Your task to perform on an android device: turn on notifications settings in the gmail app Image 0: 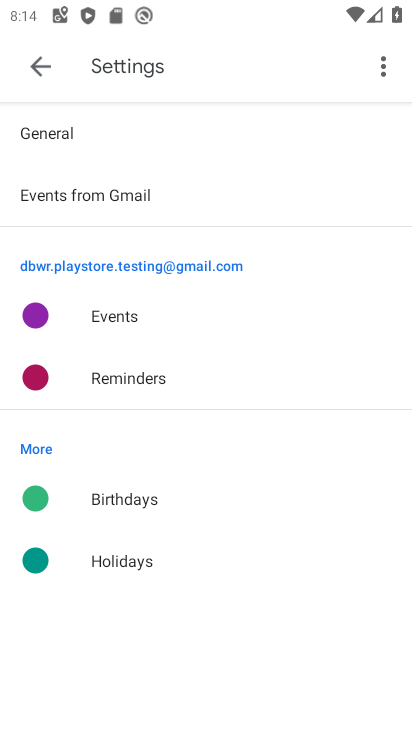
Step 0: press home button
Your task to perform on an android device: turn on notifications settings in the gmail app Image 1: 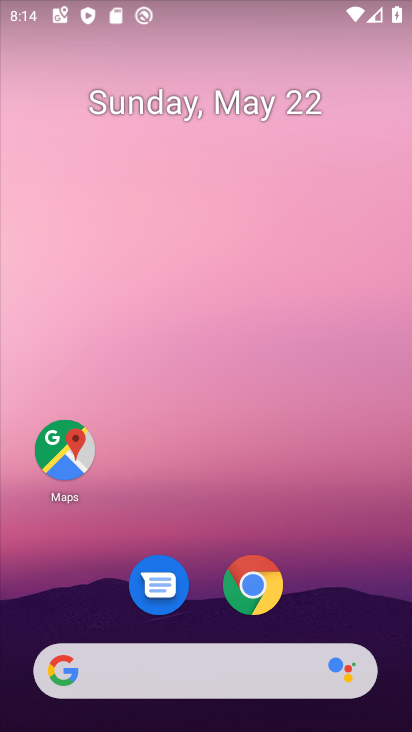
Step 1: drag from (214, 500) to (224, 26)
Your task to perform on an android device: turn on notifications settings in the gmail app Image 2: 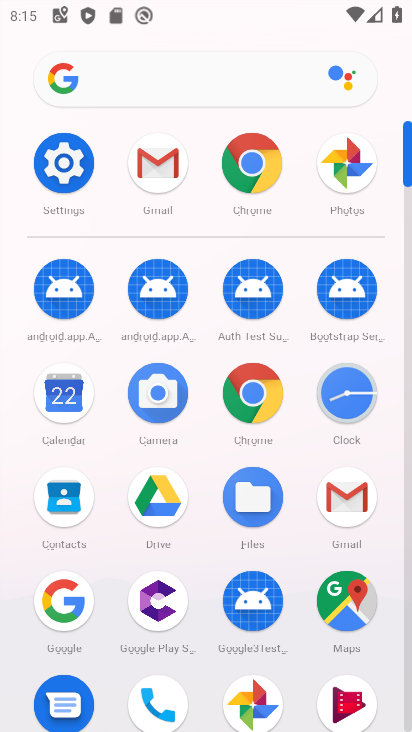
Step 2: click (165, 157)
Your task to perform on an android device: turn on notifications settings in the gmail app Image 3: 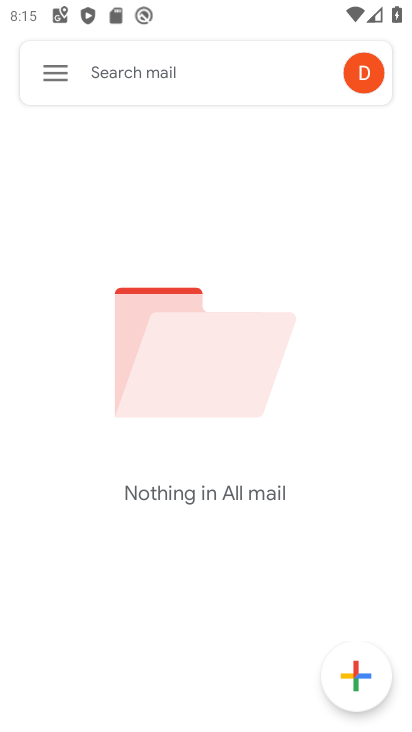
Step 3: click (64, 73)
Your task to perform on an android device: turn on notifications settings in the gmail app Image 4: 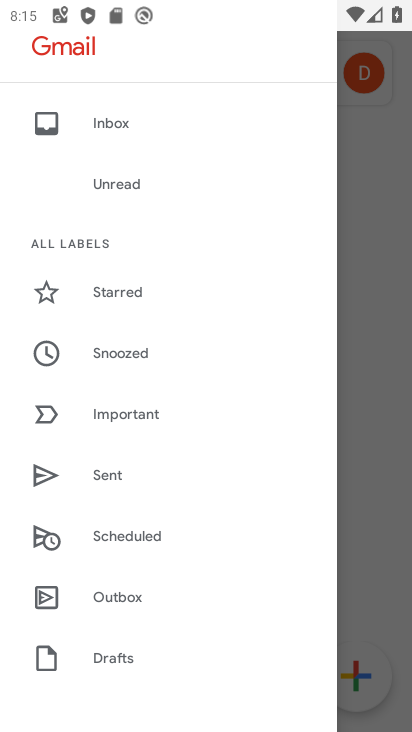
Step 4: drag from (158, 480) to (180, 39)
Your task to perform on an android device: turn on notifications settings in the gmail app Image 5: 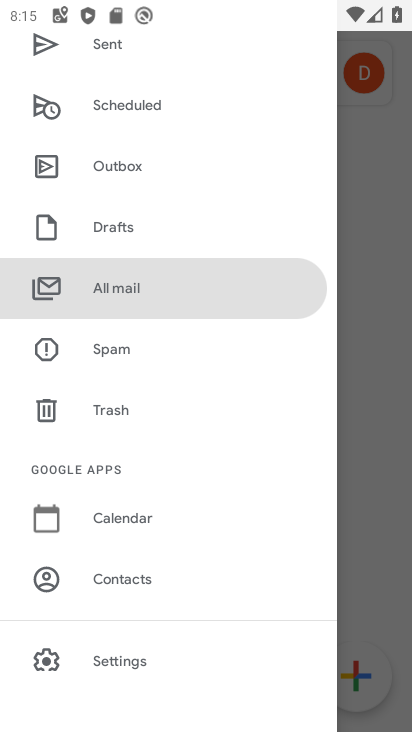
Step 5: drag from (186, 396) to (197, 331)
Your task to perform on an android device: turn on notifications settings in the gmail app Image 6: 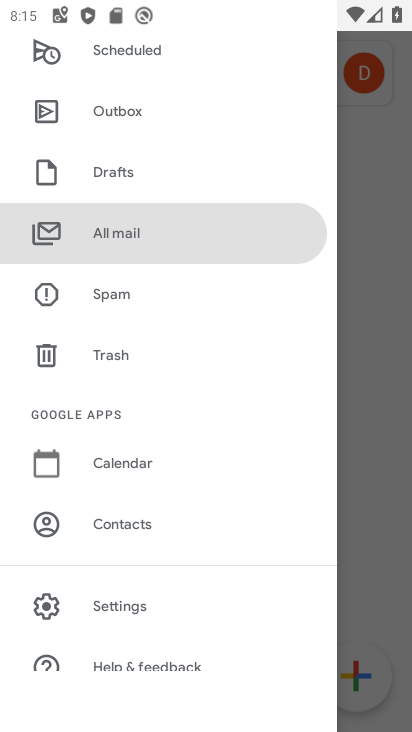
Step 6: click (118, 611)
Your task to perform on an android device: turn on notifications settings in the gmail app Image 7: 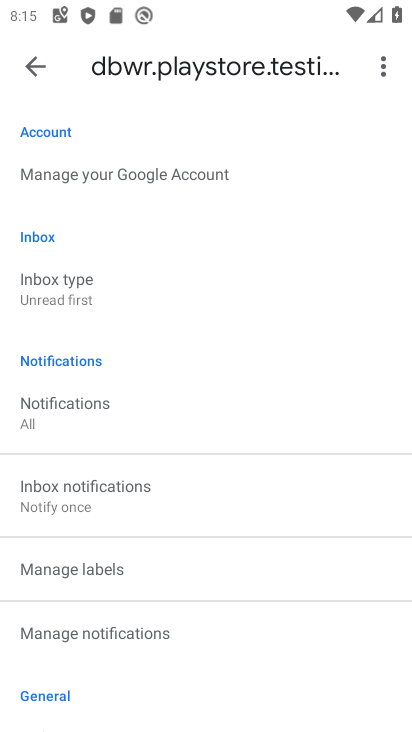
Step 7: click (129, 626)
Your task to perform on an android device: turn on notifications settings in the gmail app Image 8: 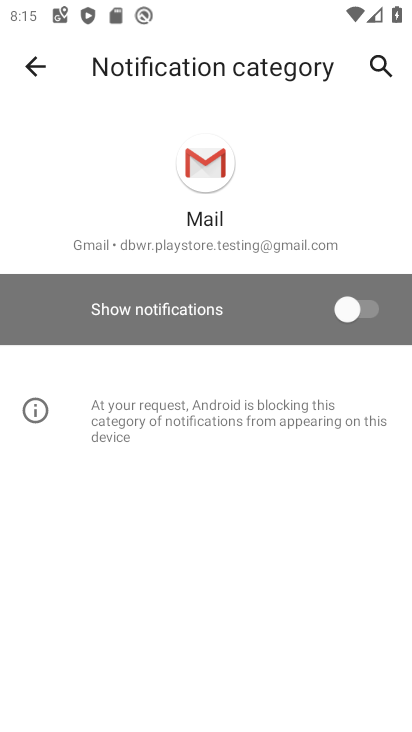
Step 8: click (355, 299)
Your task to perform on an android device: turn on notifications settings in the gmail app Image 9: 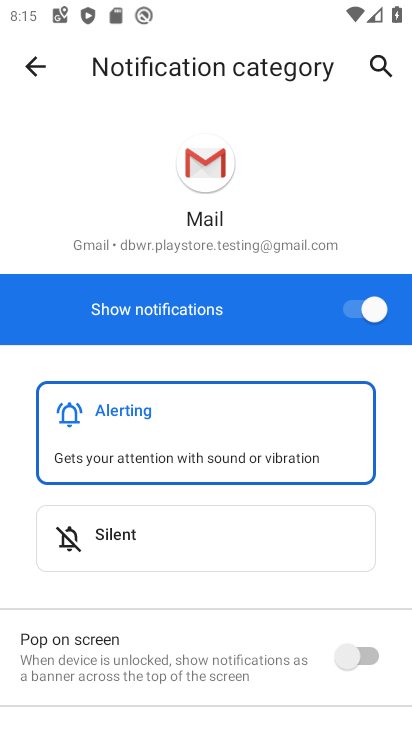
Step 9: task complete